Your task to perform on an android device: turn on wifi Image 0: 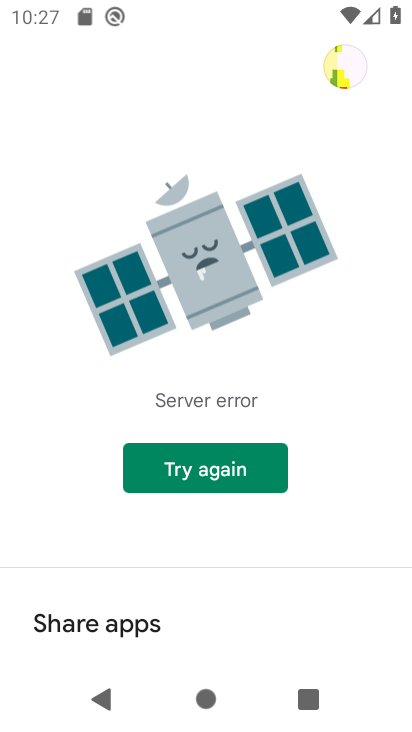
Step 0: press home button
Your task to perform on an android device: turn on wifi Image 1: 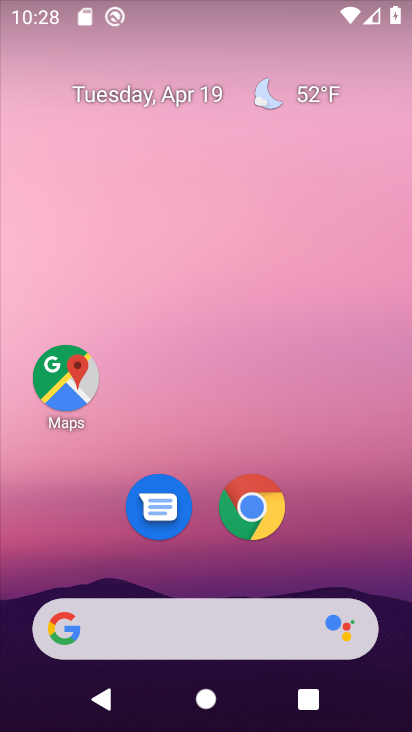
Step 1: drag from (363, 429) to (362, 74)
Your task to perform on an android device: turn on wifi Image 2: 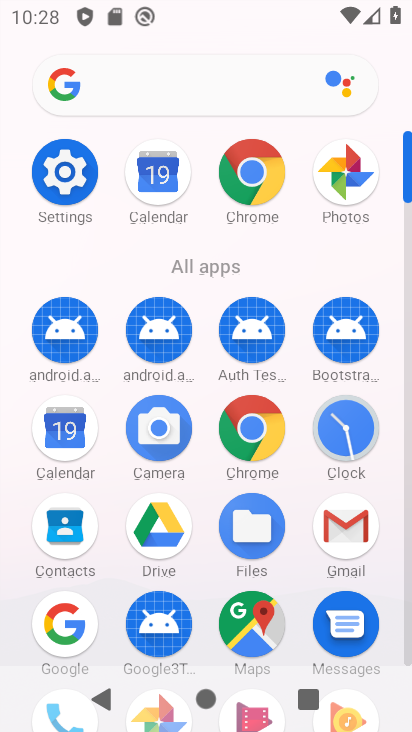
Step 2: click (71, 174)
Your task to perform on an android device: turn on wifi Image 3: 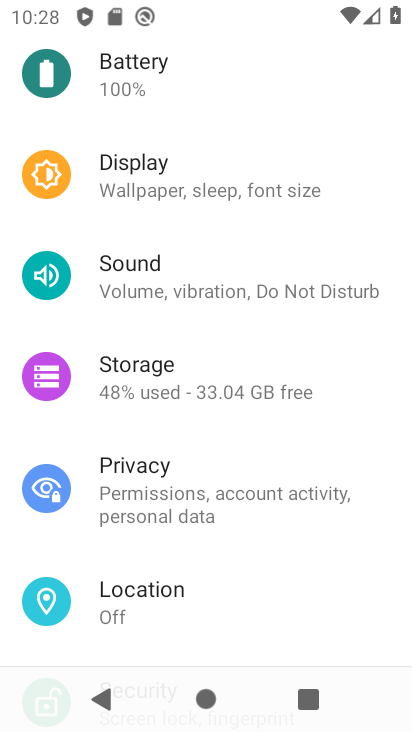
Step 3: drag from (389, 196) to (333, 436)
Your task to perform on an android device: turn on wifi Image 4: 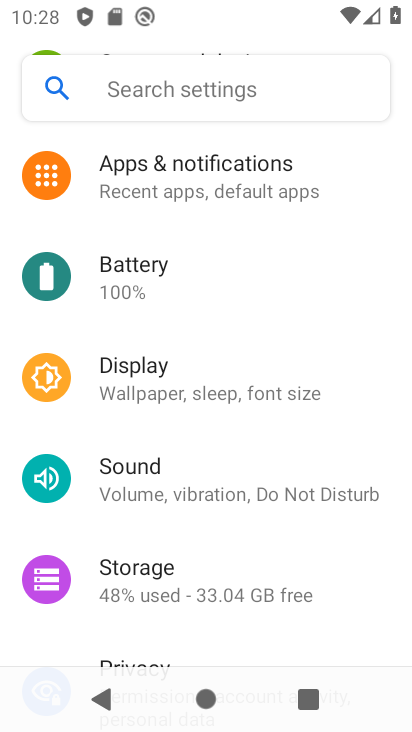
Step 4: drag from (377, 196) to (376, 480)
Your task to perform on an android device: turn on wifi Image 5: 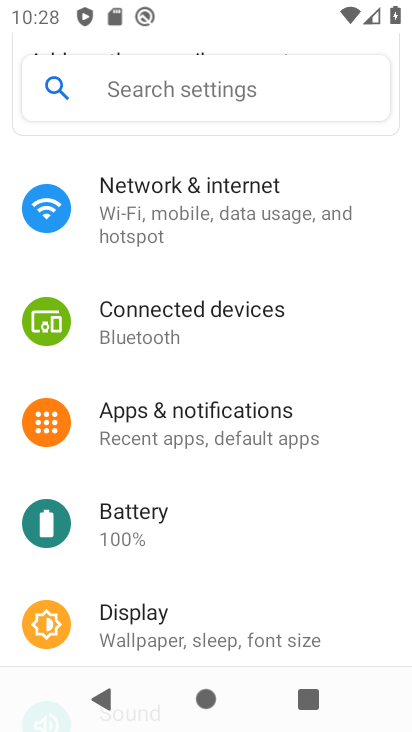
Step 5: drag from (380, 179) to (345, 424)
Your task to perform on an android device: turn on wifi Image 6: 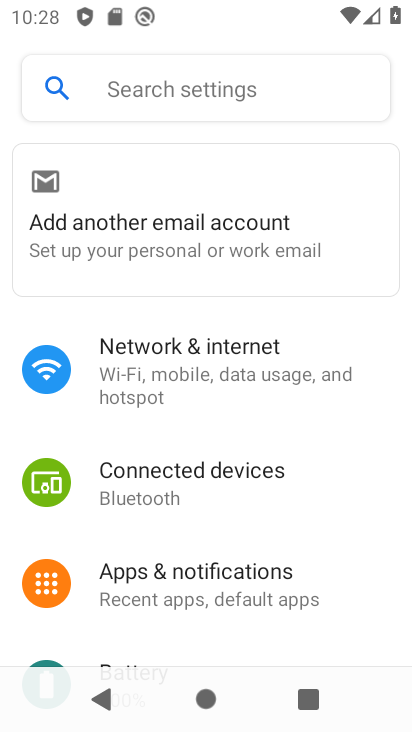
Step 6: click (225, 367)
Your task to perform on an android device: turn on wifi Image 7: 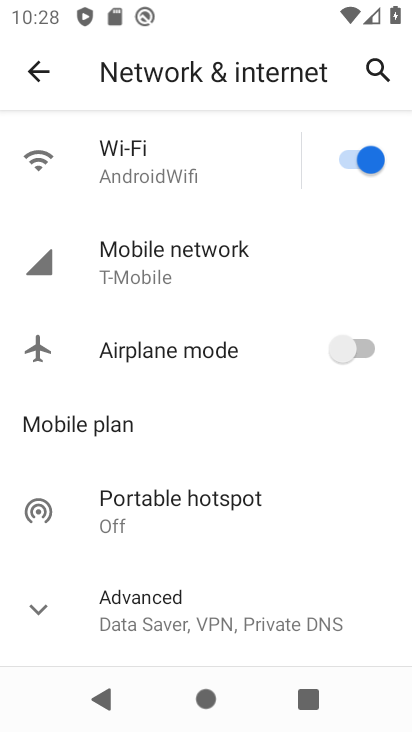
Step 7: task complete